Your task to perform on an android device: Open Google Chrome and click the shortcut for Amazon.com Image 0: 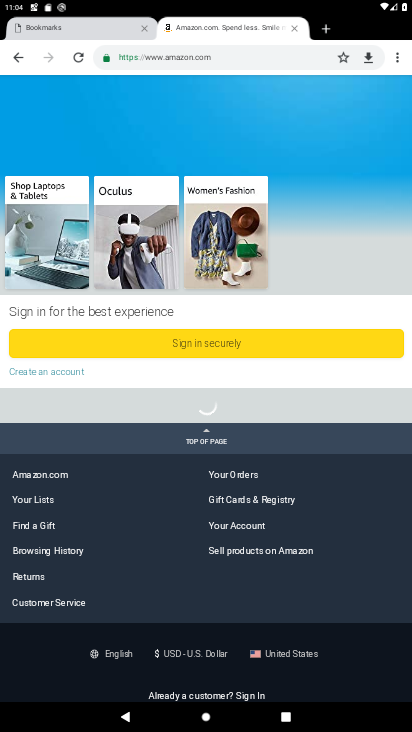
Step 0: task complete